Your task to perform on an android device: set default search engine in the chrome app Image 0: 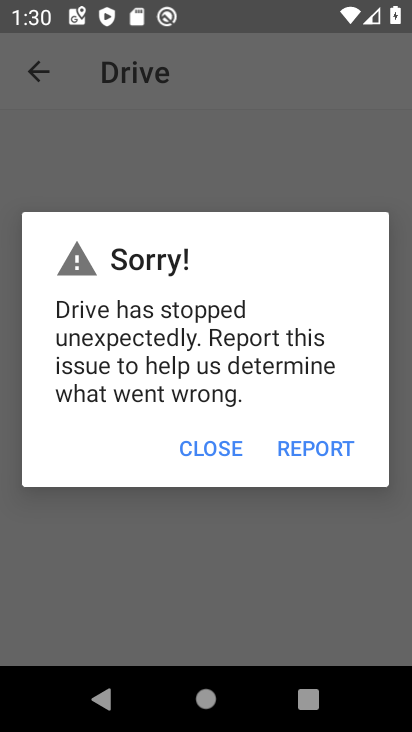
Step 0: press home button
Your task to perform on an android device: set default search engine in the chrome app Image 1: 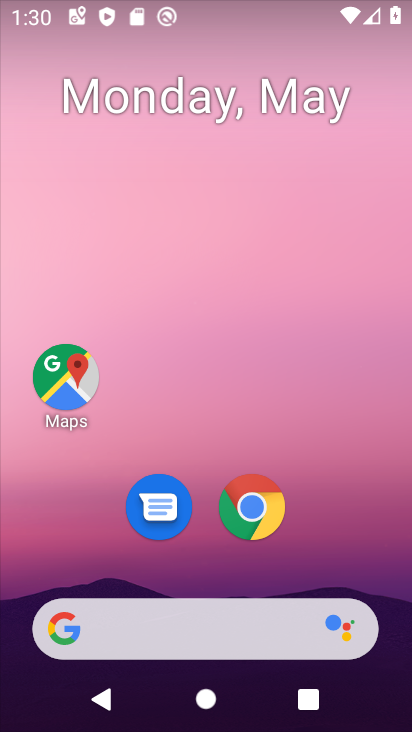
Step 1: click (234, 535)
Your task to perform on an android device: set default search engine in the chrome app Image 2: 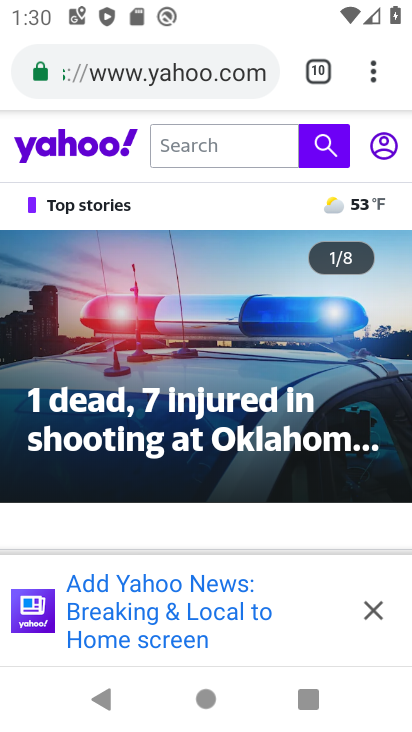
Step 2: click (373, 78)
Your task to perform on an android device: set default search engine in the chrome app Image 3: 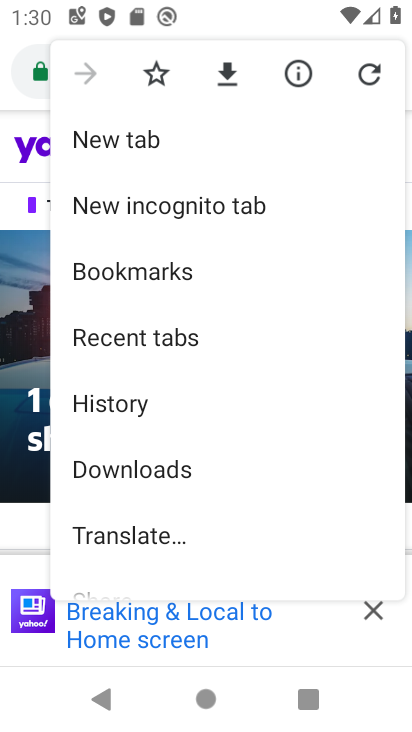
Step 3: drag from (153, 565) to (151, 156)
Your task to perform on an android device: set default search engine in the chrome app Image 4: 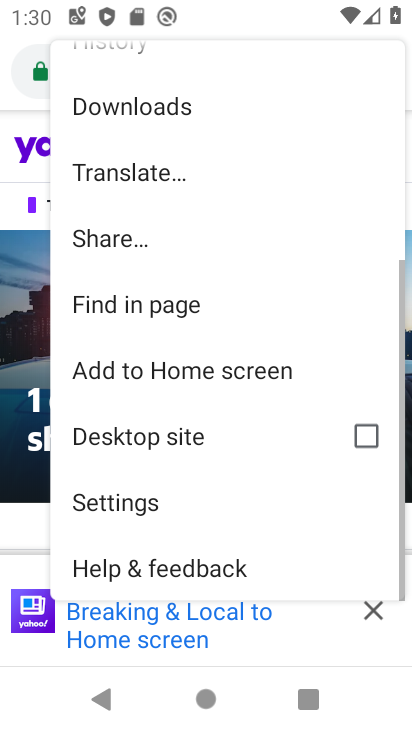
Step 4: click (120, 498)
Your task to perform on an android device: set default search engine in the chrome app Image 5: 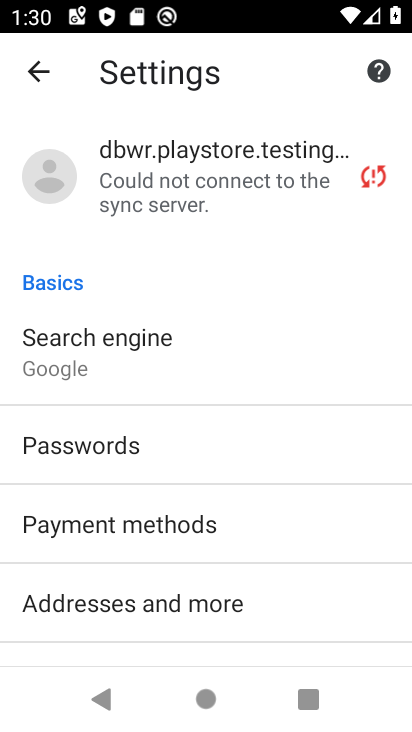
Step 5: drag from (118, 642) to (116, 255)
Your task to perform on an android device: set default search engine in the chrome app Image 6: 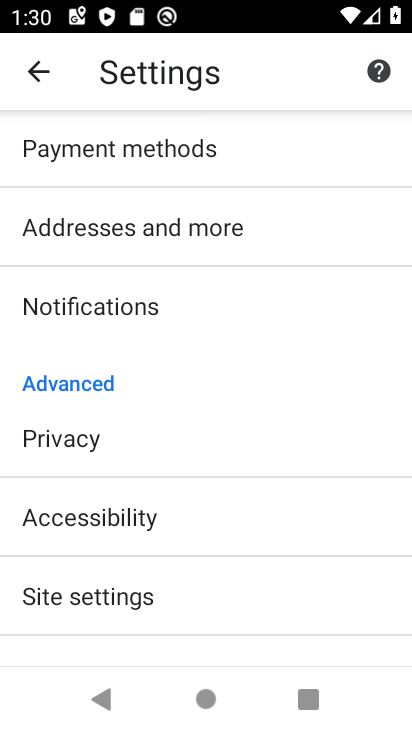
Step 6: drag from (103, 617) to (100, 306)
Your task to perform on an android device: set default search engine in the chrome app Image 7: 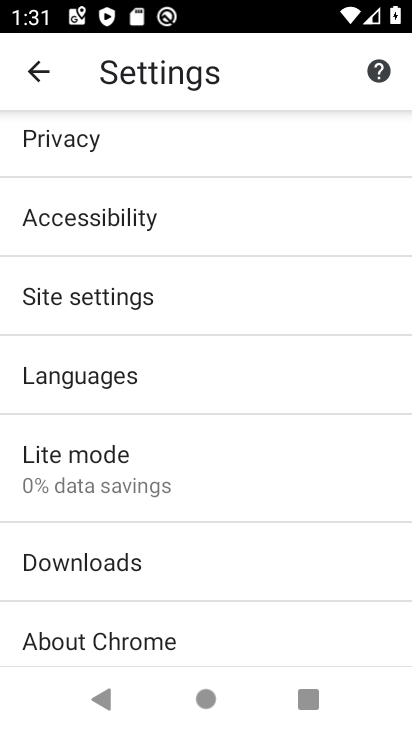
Step 7: drag from (165, 183) to (146, 539)
Your task to perform on an android device: set default search engine in the chrome app Image 8: 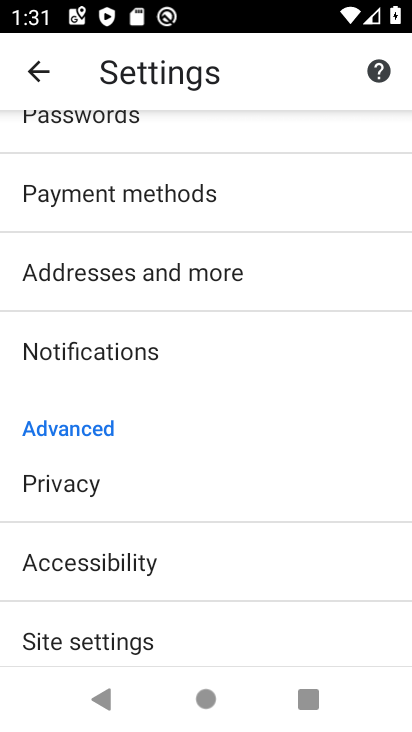
Step 8: drag from (175, 138) to (152, 499)
Your task to perform on an android device: set default search engine in the chrome app Image 9: 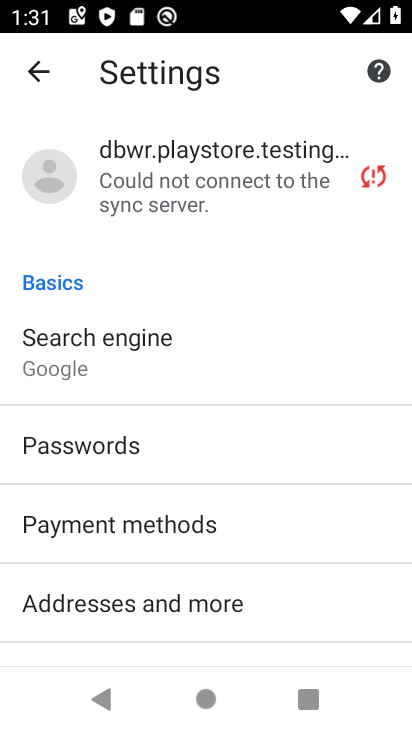
Step 9: click (80, 298)
Your task to perform on an android device: set default search engine in the chrome app Image 10: 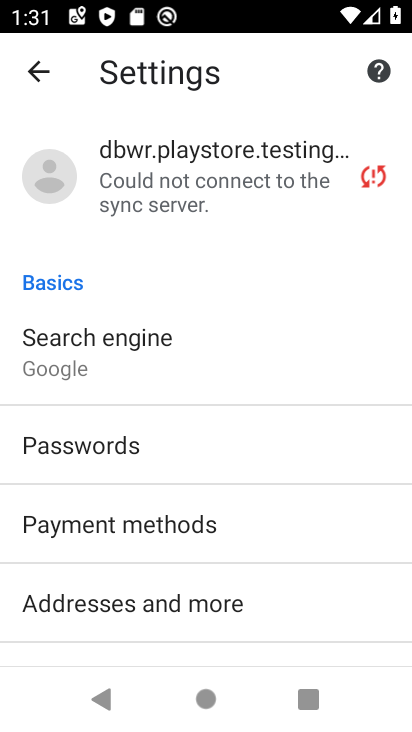
Step 10: click (73, 350)
Your task to perform on an android device: set default search engine in the chrome app Image 11: 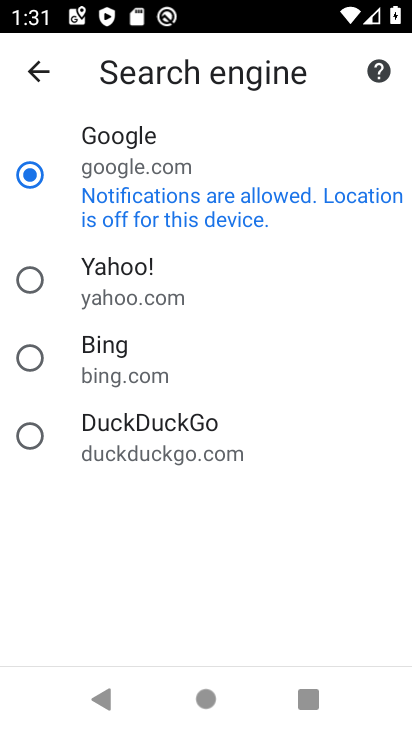
Step 11: click (35, 273)
Your task to perform on an android device: set default search engine in the chrome app Image 12: 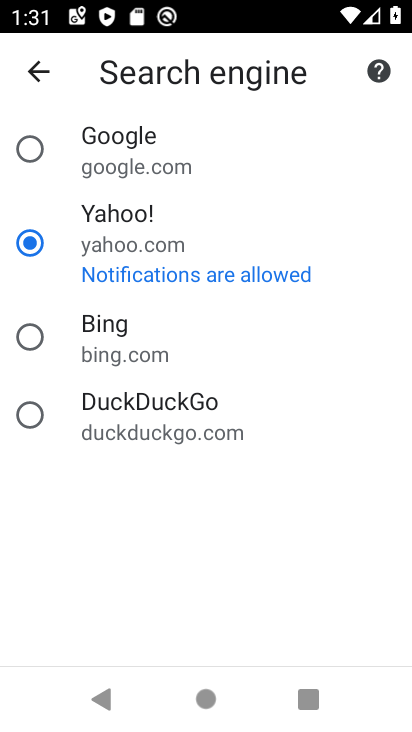
Step 12: task complete